Your task to perform on an android device: Do I have any events today? Image 0: 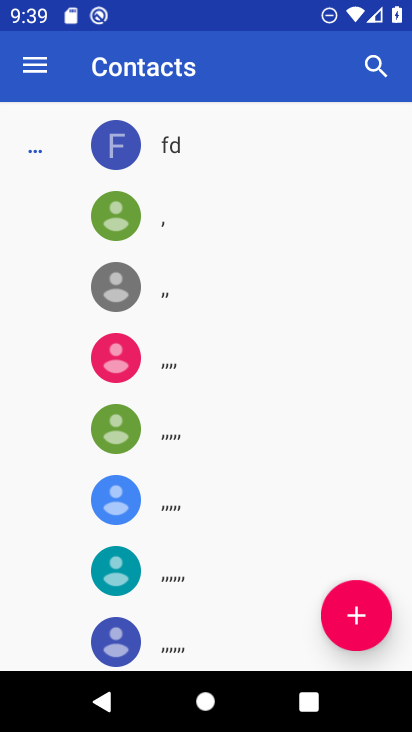
Step 0: press home button
Your task to perform on an android device: Do I have any events today? Image 1: 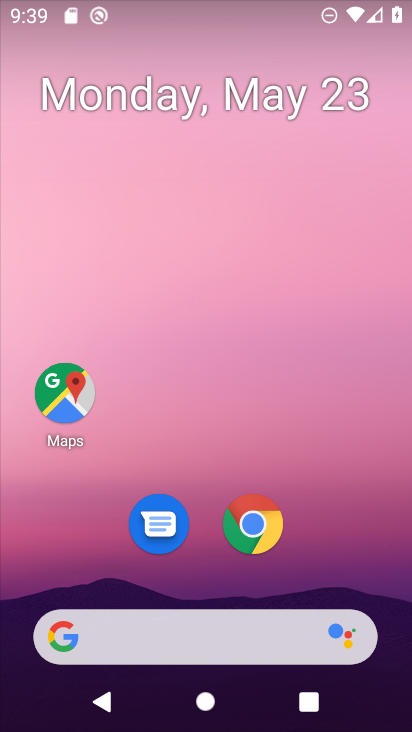
Step 1: drag from (261, 413) to (280, 26)
Your task to perform on an android device: Do I have any events today? Image 2: 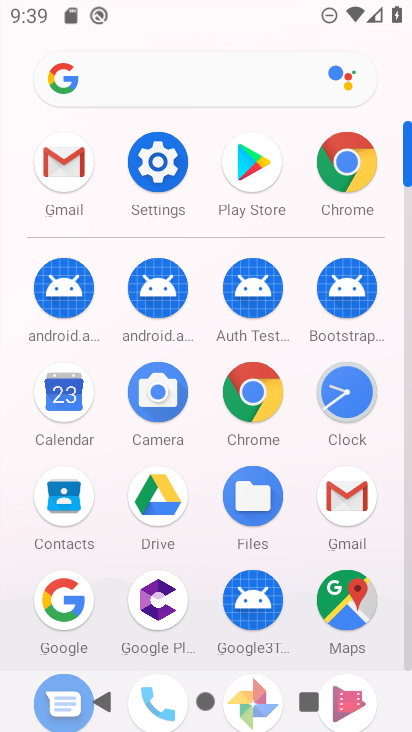
Step 2: click (74, 393)
Your task to perform on an android device: Do I have any events today? Image 3: 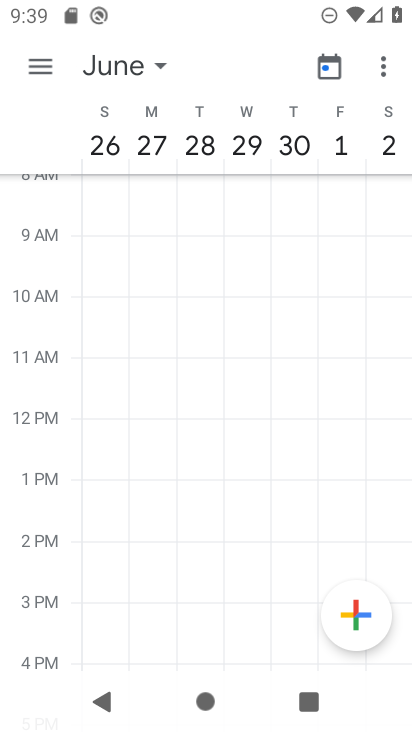
Step 3: drag from (124, 341) to (404, 283)
Your task to perform on an android device: Do I have any events today? Image 4: 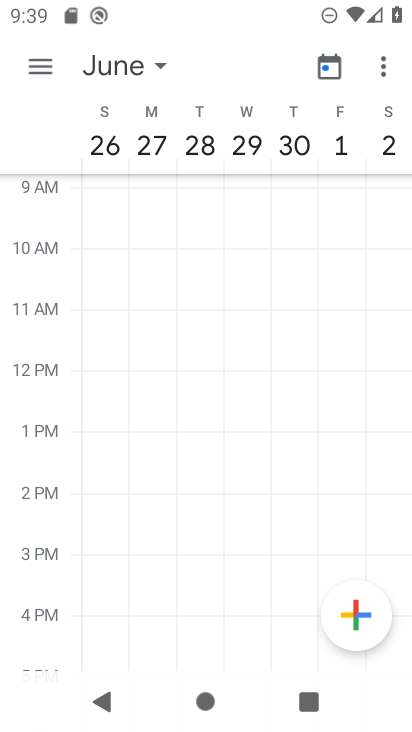
Step 4: drag from (116, 269) to (377, 384)
Your task to perform on an android device: Do I have any events today? Image 5: 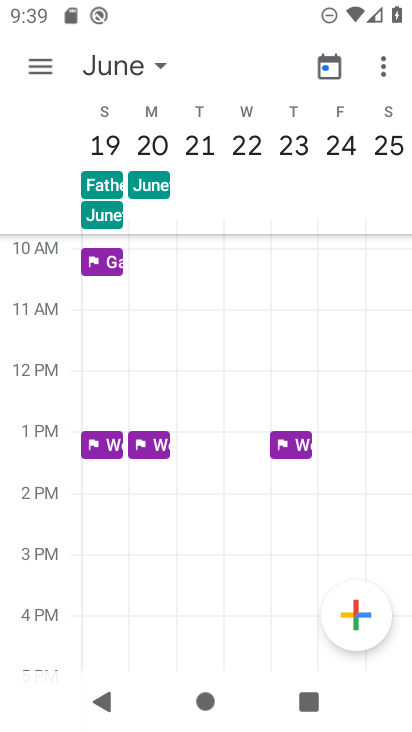
Step 5: drag from (74, 354) to (400, 358)
Your task to perform on an android device: Do I have any events today? Image 6: 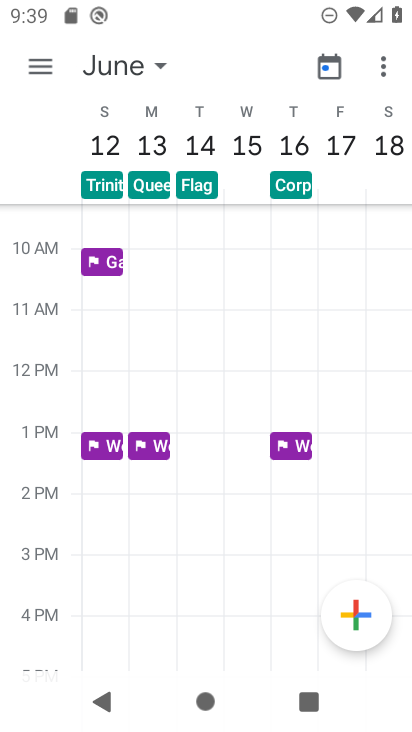
Step 6: drag from (143, 355) to (387, 332)
Your task to perform on an android device: Do I have any events today? Image 7: 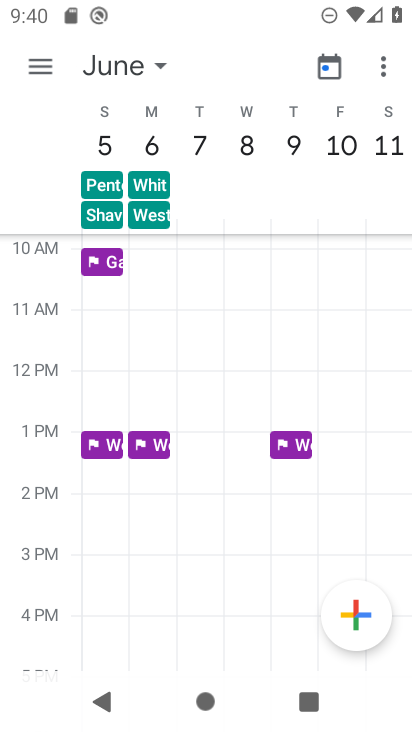
Step 7: drag from (152, 340) to (403, 333)
Your task to perform on an android device: Do I have any events today? Image 8: 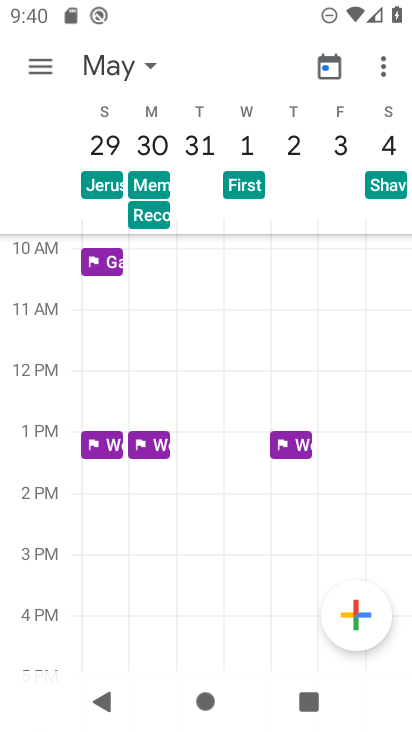
Step 8: drag from (131, 341) to (391, 311)
Your task to perform on an android device: Do I have any events today? Image 9: 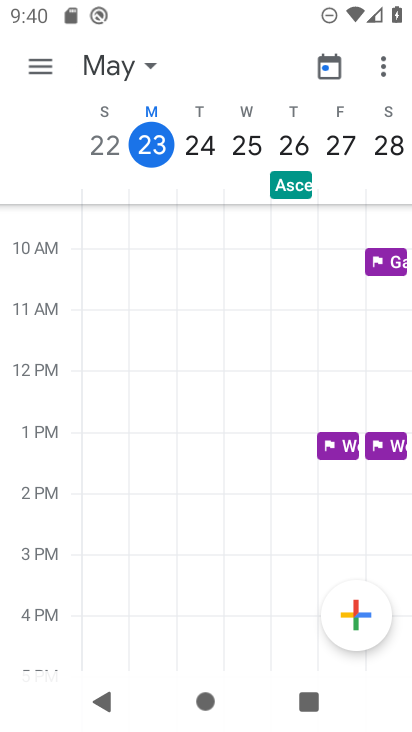
Step 9: click (154, 136)
Your task to perform on an android device: Do I have any events today? Image 10: 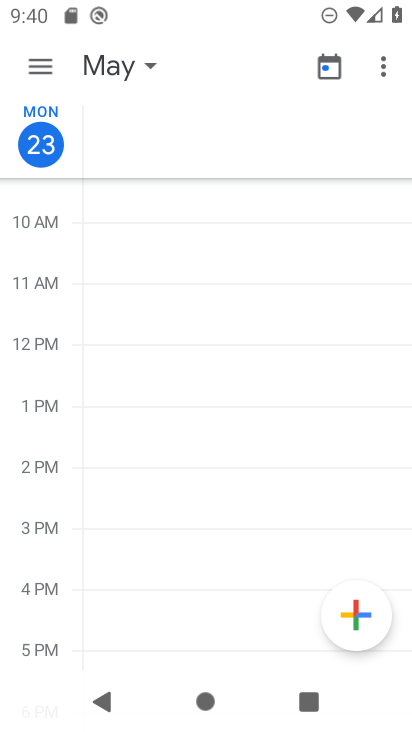
Step 10: click (41, 54)
Your task to perform on an android device: Do I have any events today? Image 11: 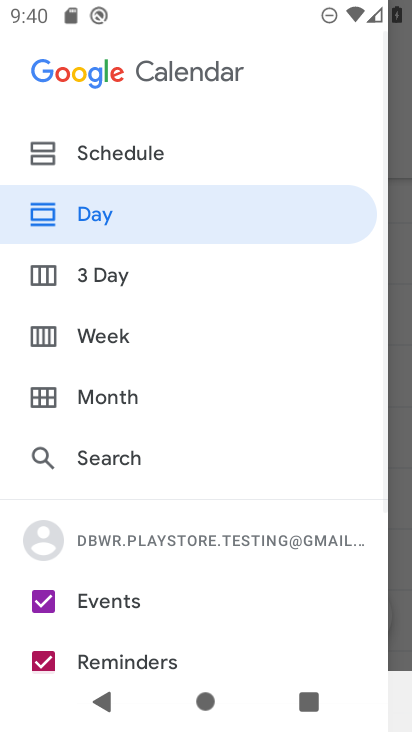
Step 11: click (102, 144)
Your task to perform on an android device: Do I have any events today? Image 12: 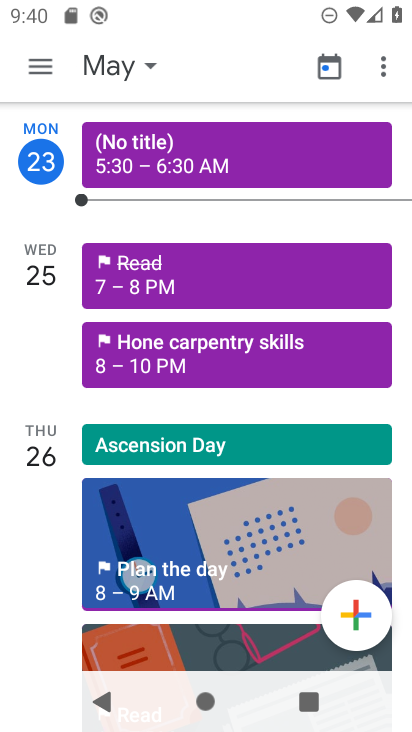
Step 12: task complete